Your task to perform on an android device: search for starred emails in the gmail app Image 0: 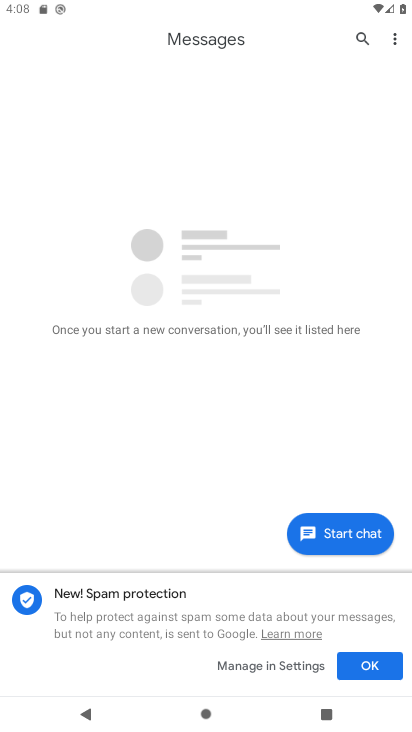
Step 0: press home button
Your task to perform on an android device: search for starred emails in the gmail app Image 1: 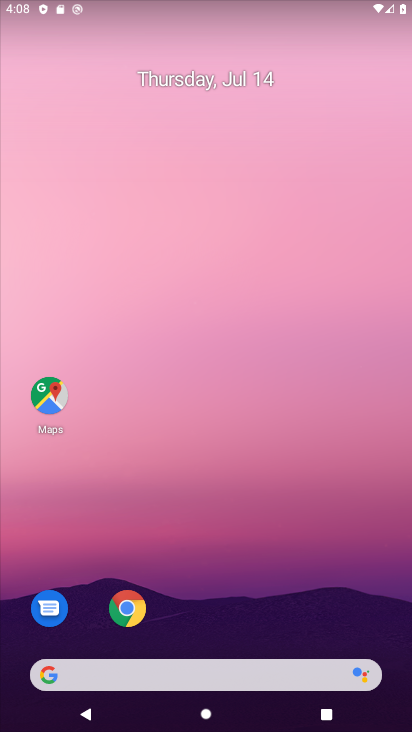
Step 1: drag from (187, 643) to (269, 177)
Your task to perform on an android device: search for starred emails in the gmail app Image 2: 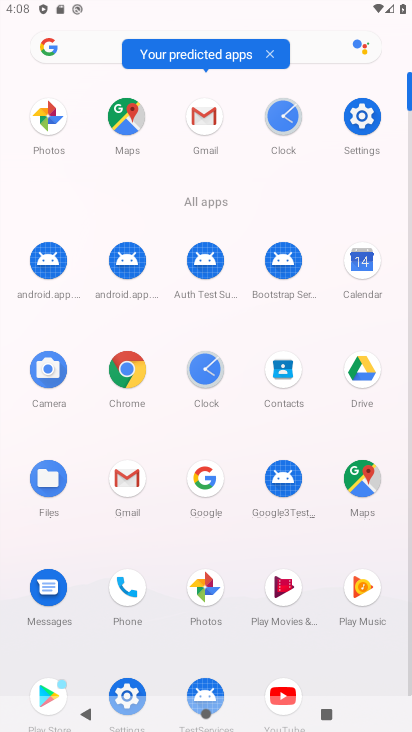
Step 2: click (114, 482)
Your task to perform on an android device: search for starred emails in the gmail app Image 3: 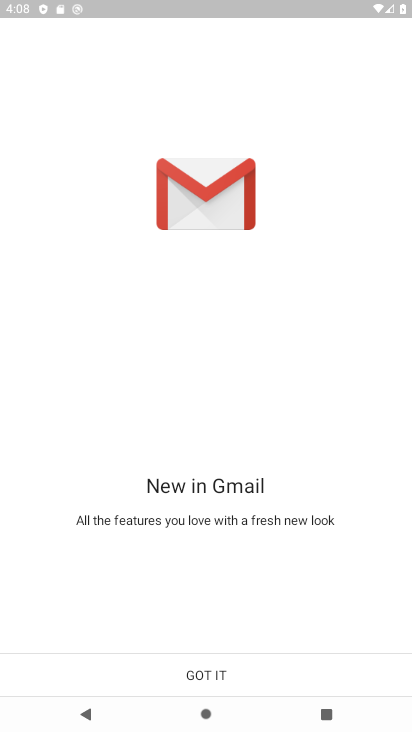
Step 3: click (230, 661)
Your task to perform on an android device: search for starred emails in the gmail app Image 4: 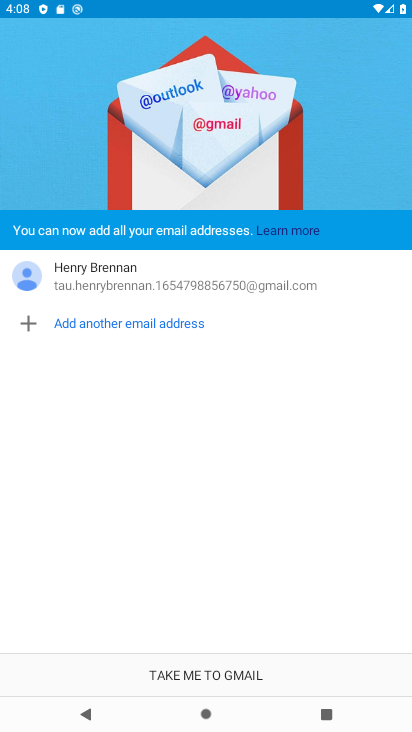
Step 4: click (238, 672)
Your task to perform on an android device: search for starred emails in the gmail app Image 5: 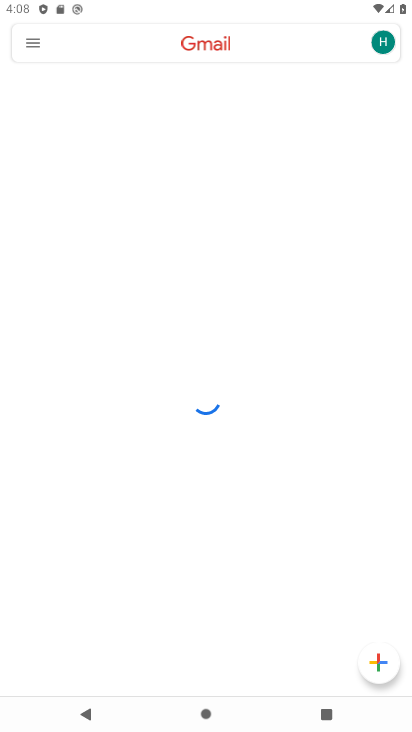
Step 5: click (41, 50)
Your task to perform on an android device: search for starred emails in the gmail app Image 6: 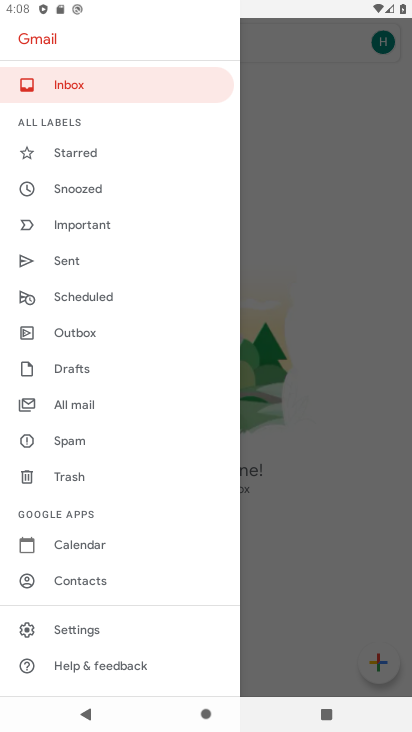
Step 6: click (126, 162)
Your task to perform on an android device: search for starred emails in the gmail app Image 7: 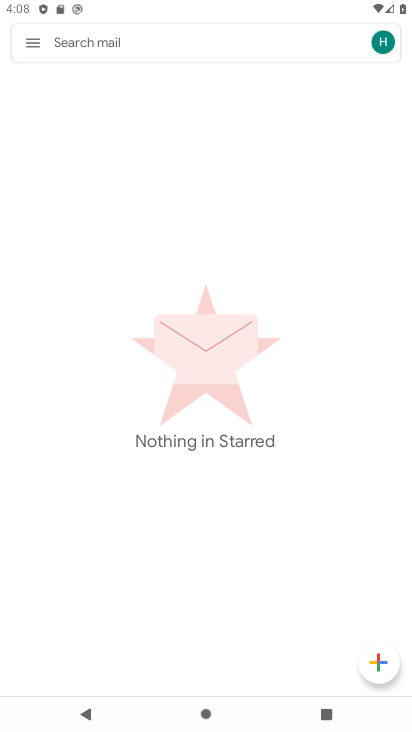
Step 7: task complete